Your task to perform on an android device: Open Yahoo.com Image 0: 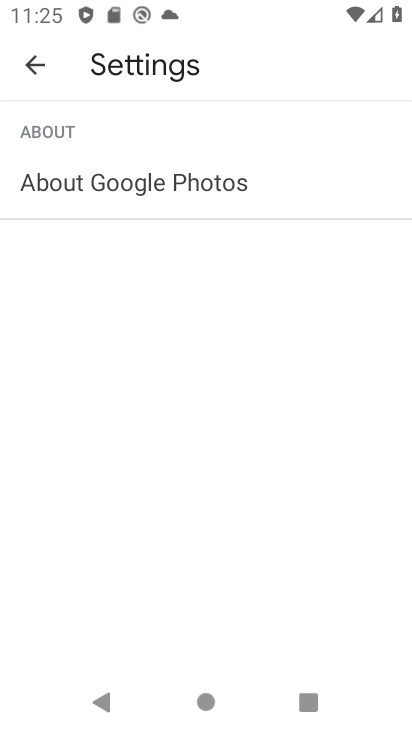
Step 0: press home button
Your task to perform on an android device: Open Yahoo.com Image 1: 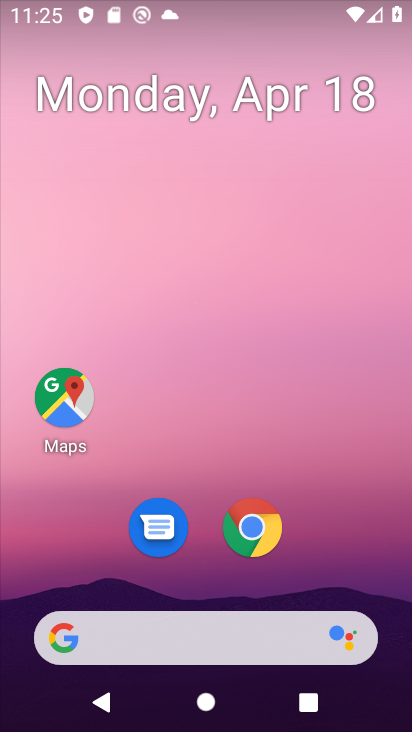
Step 1: click (253, 524)
Your task to perform on an android device: Open Yahoo.com Image 2: 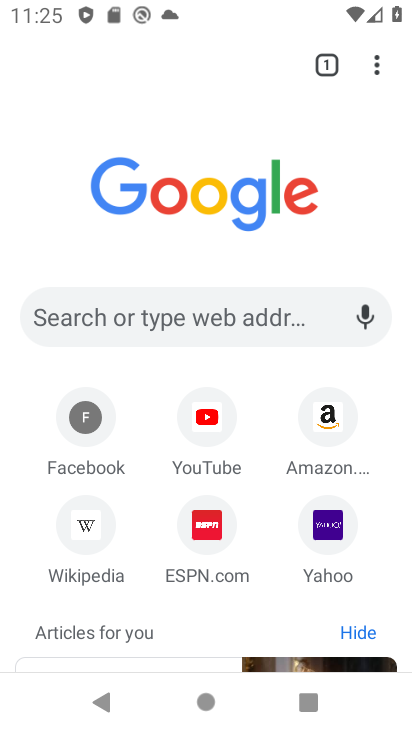
Step 2: click (114, 314)
Your task to perform on an android device: Open Yahoo.com Image 3: 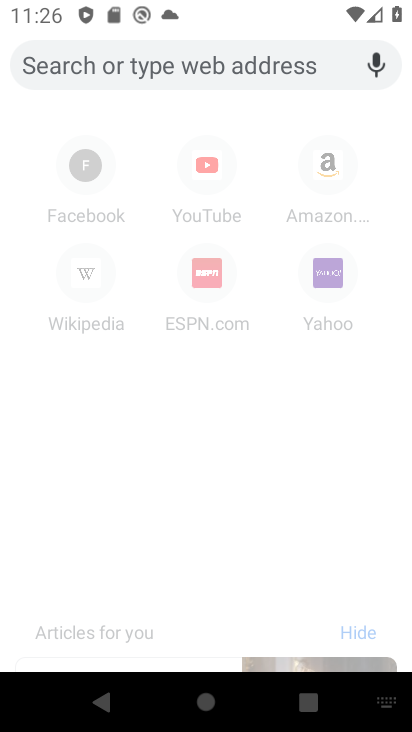
Step 3: type "yahoo.com"
Your task to perform on an android device: Open Yahoo.com Image 4: 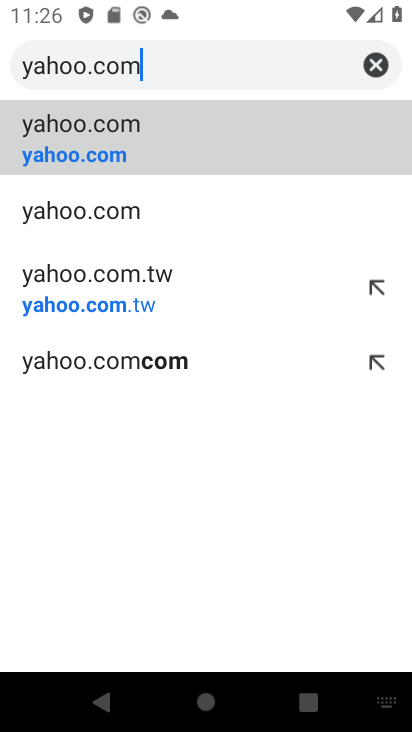
Step 4: click (178, 155)
Your task to perform on an android device: Open Yahoo.com Image 5: 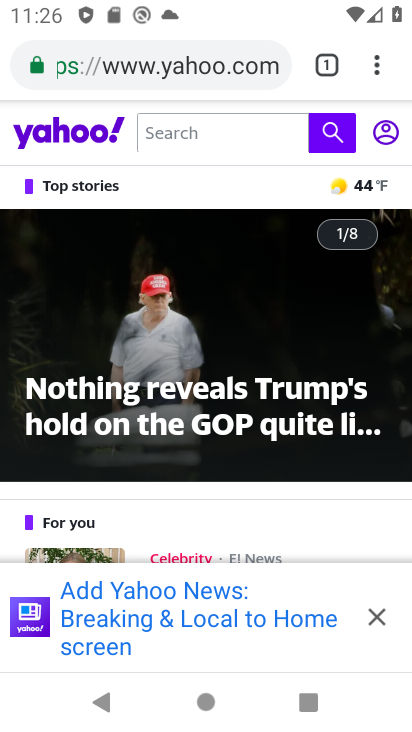
Step 5: task complete